Your task to perform on an android device: empty trash in google photos Image 0: 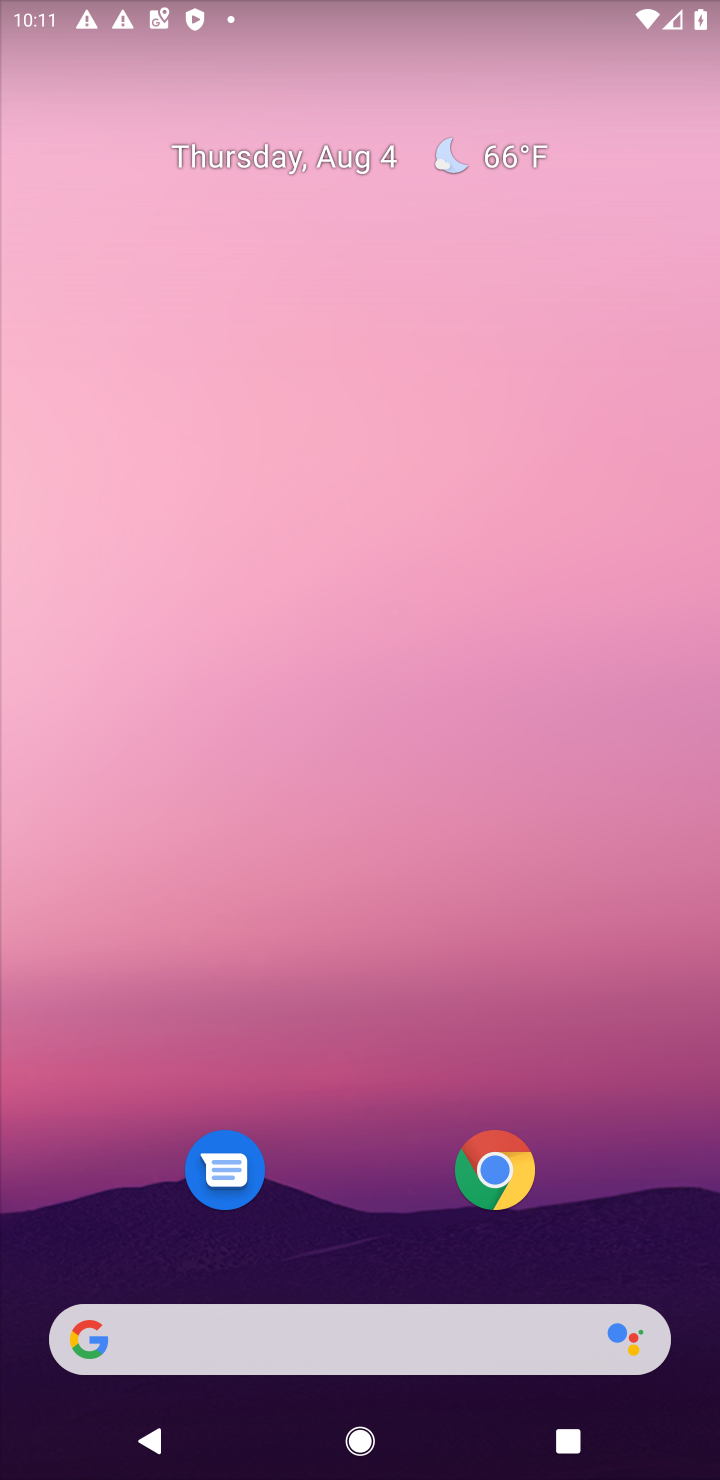
Step 0: drag from (320, 826) to (462, 3)
Your task to perform on an android device: empty trash in google photos Image 1: 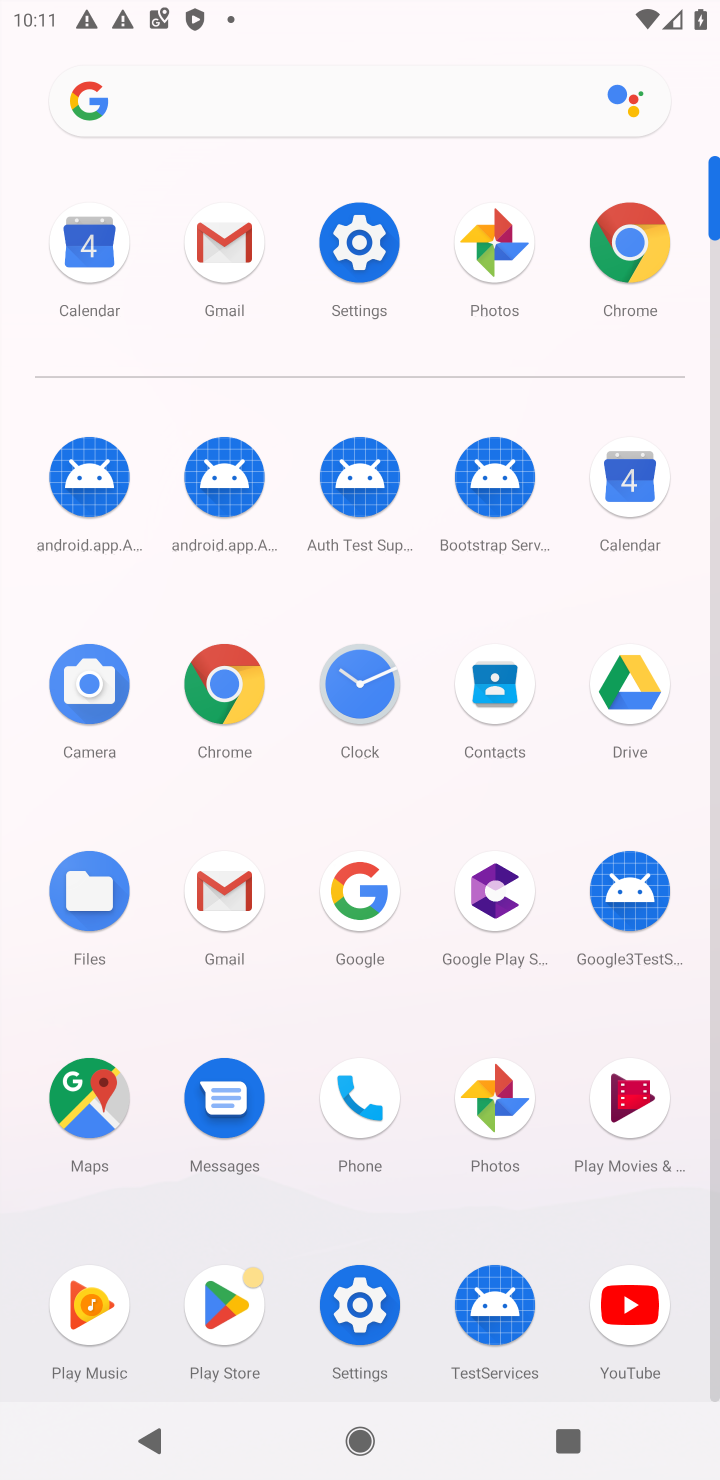
Step 1: click (485, 1111)
Your task to perform on an android device: empty trash in google photos Image 2: 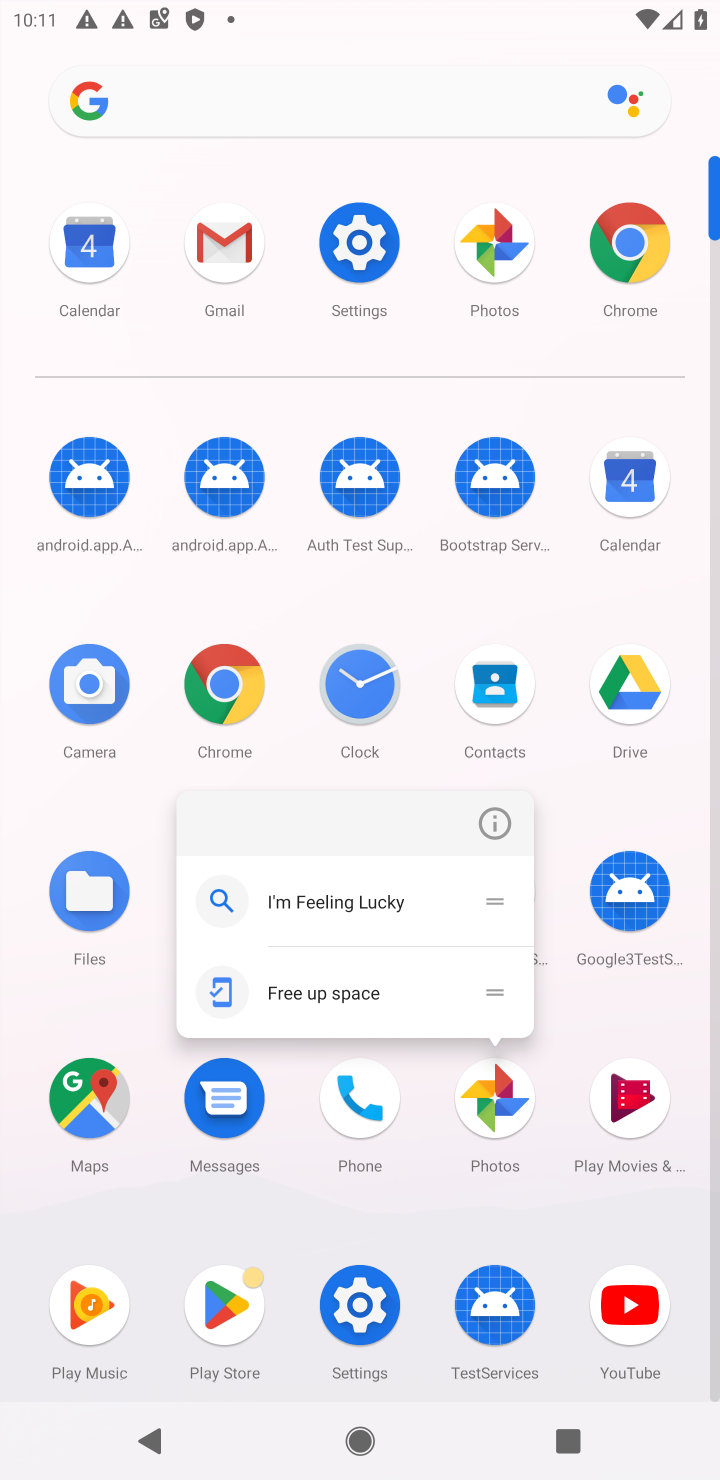
Step 2: click (495, 1109)
Your task to perform on an android device: empty trash in google photos Image 3: 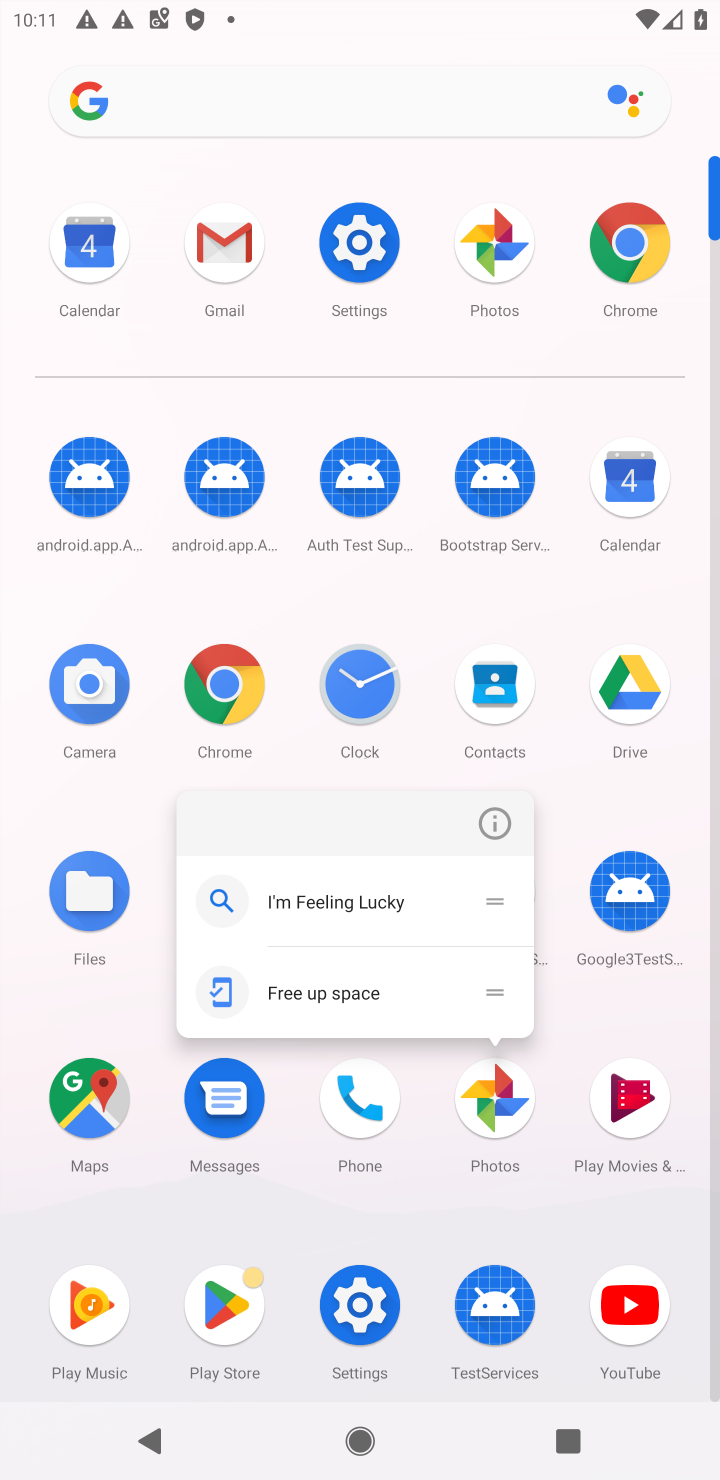
Step 3: click (511, 1111)
Your task to perform on an android device: empty trash in google photos Image 4: 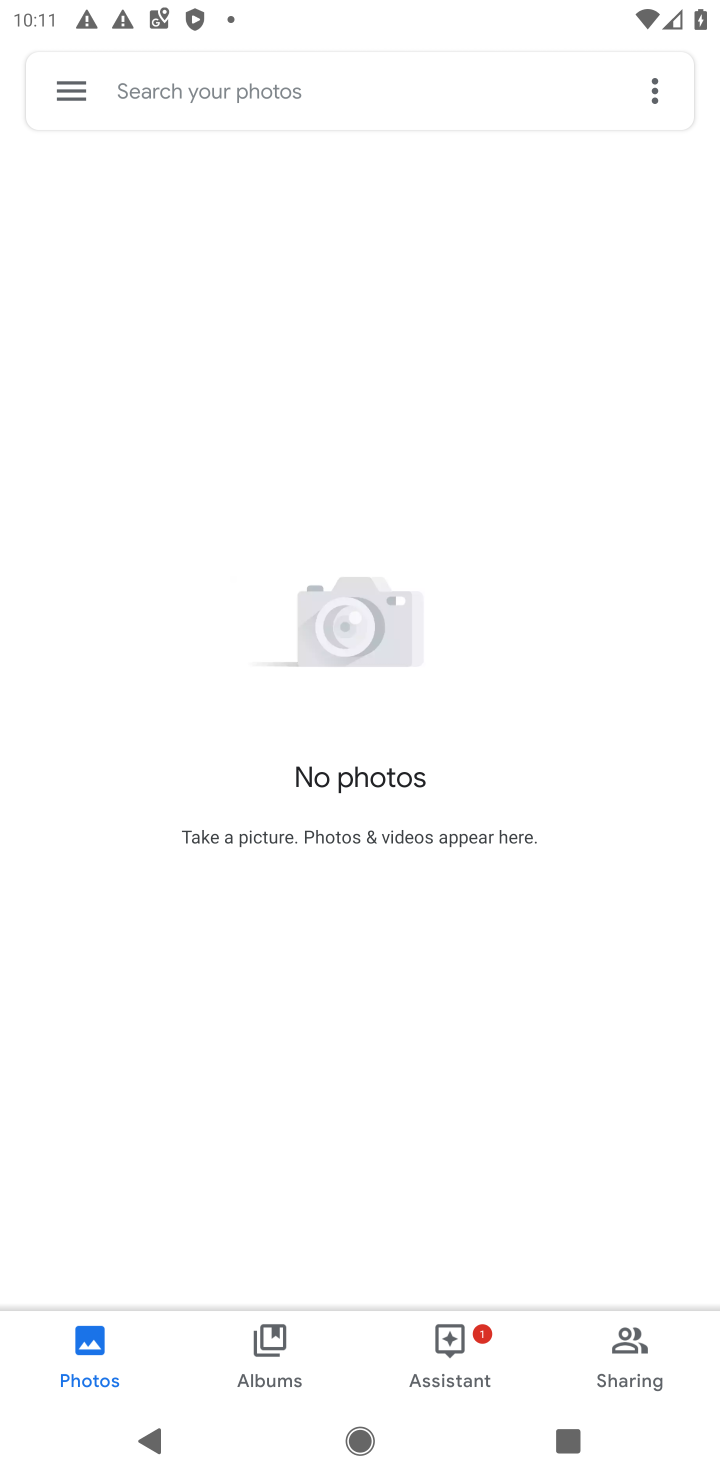
Step 4: click (66, 68)
Your task to perform on an android device: empty trash in google photos Image 5: 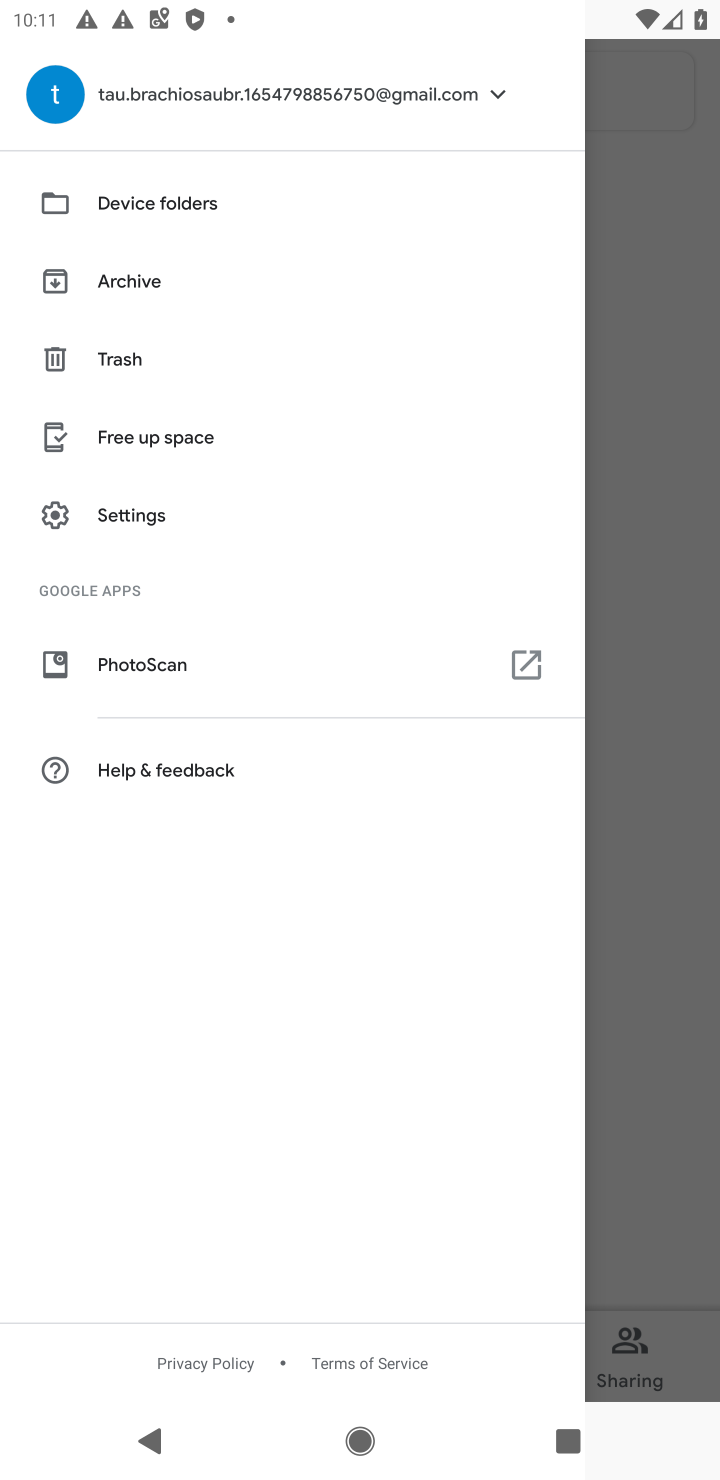
Step 5: click (149, 389)
Your task to perform on an android device: empty trash in google photos Image 6: 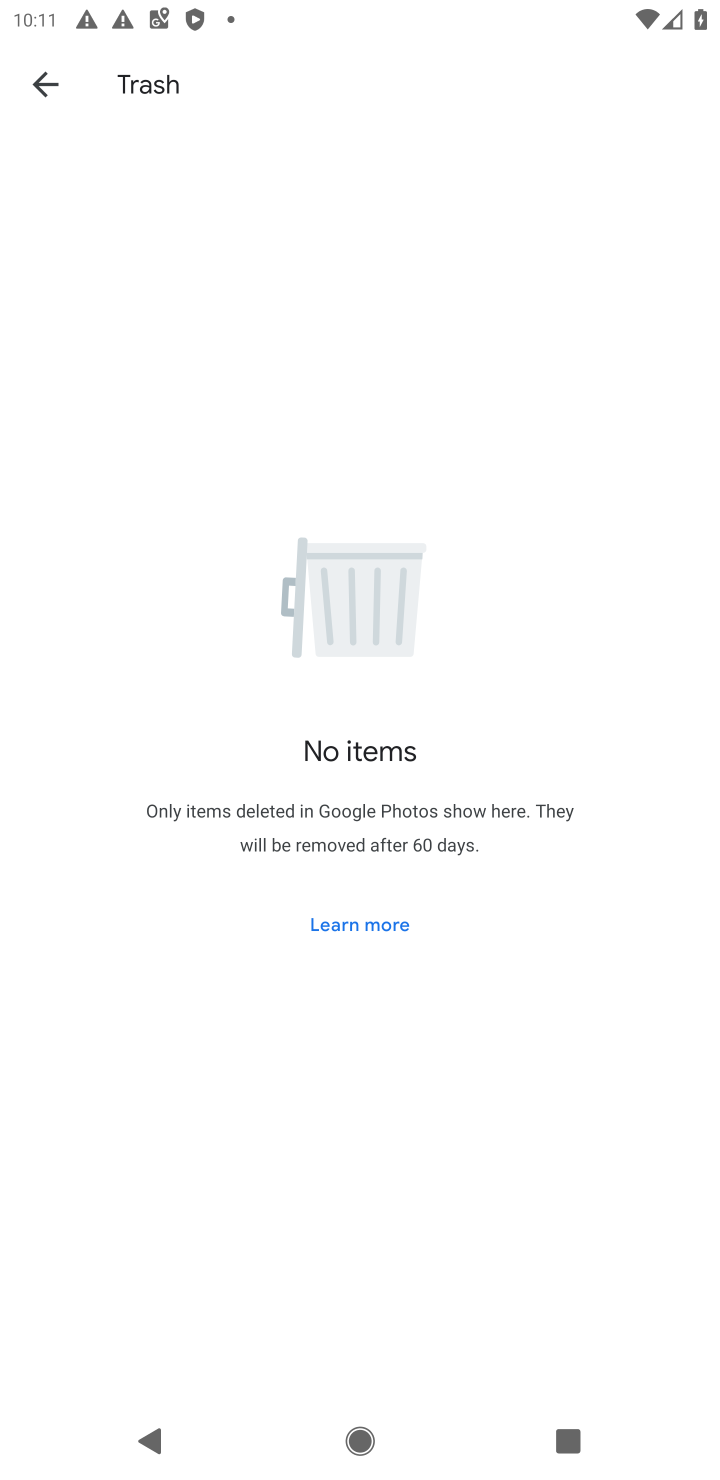
Step 6: task complete